Your task to perform on an android device: Is it going to rain tomorrow? Image 0: 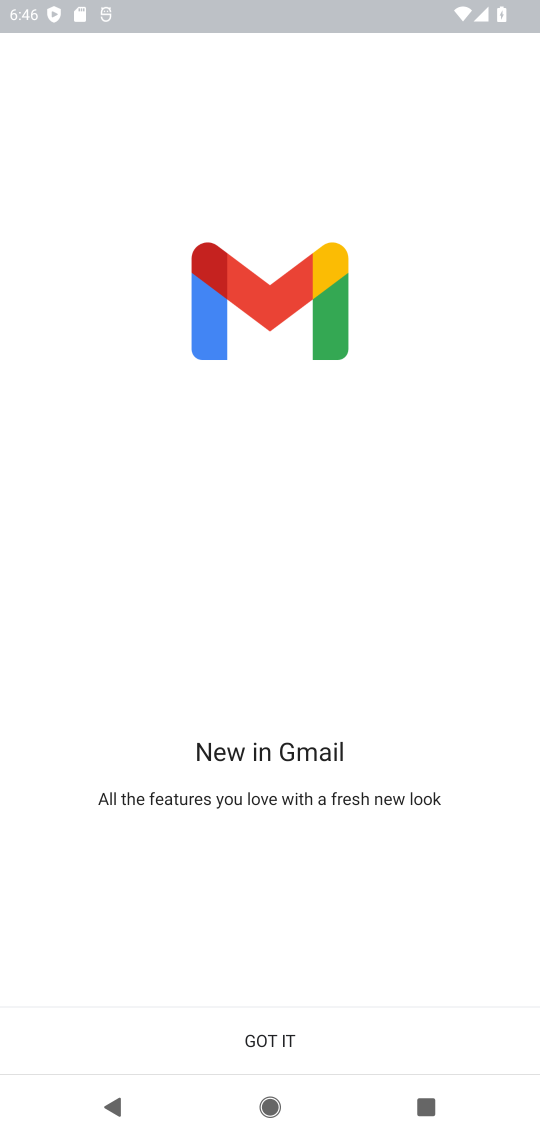
Step 0: press home button
Your task to perform on an android device: Is it going to rain tomorrow? Image 1: 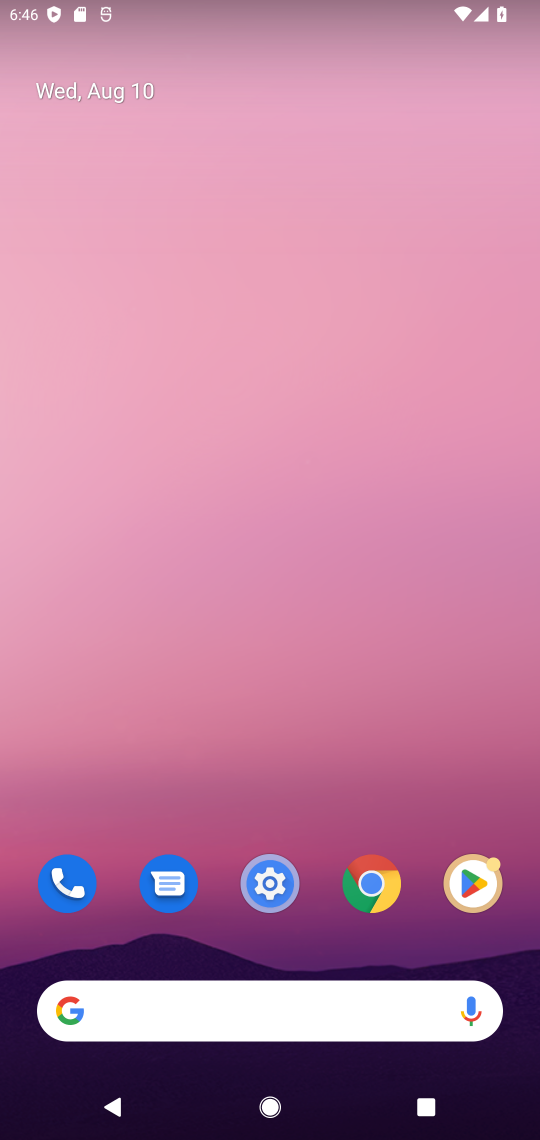
Step 1: click (244, 985)
Your task to perform on an android device: Is it going to rain tomorrow? Image 2: 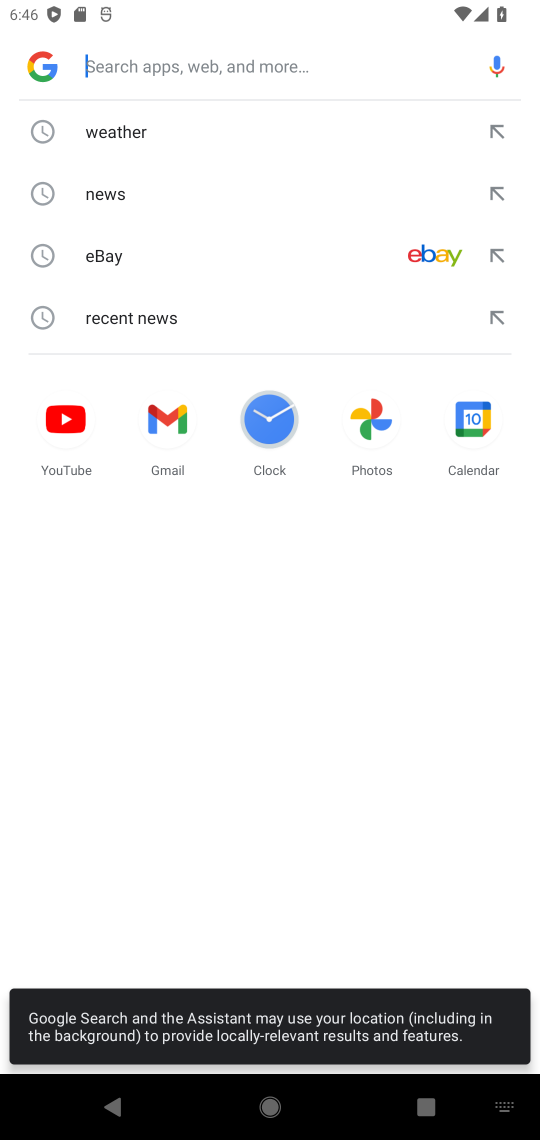
Step 2: click (193, 61)
Your task to perform on an android device: Is it going to rain tomorrow? Image 3: 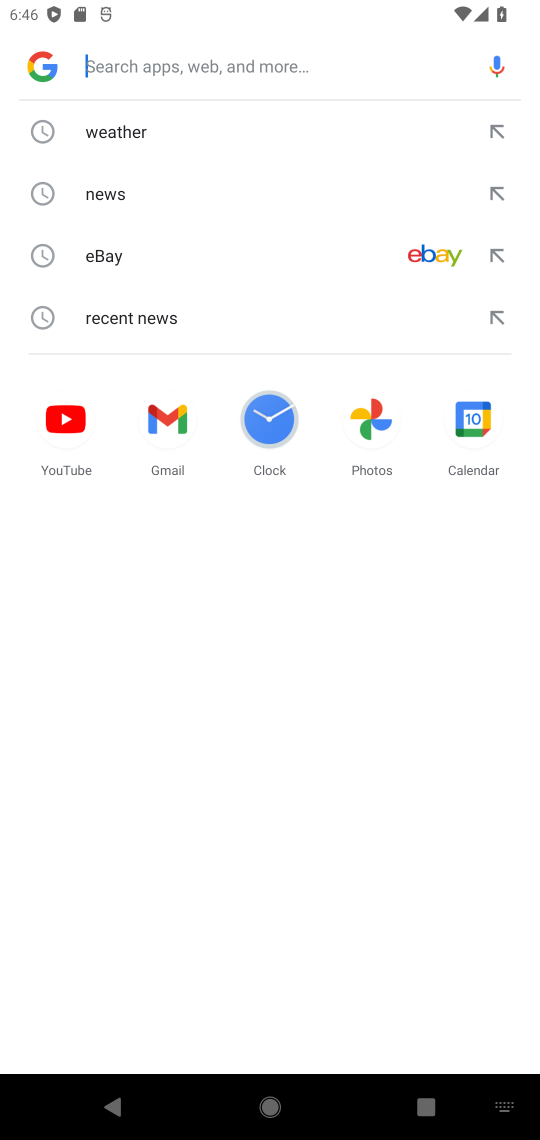
Step 3: click (150, 135)
Your task to perform on an android device: Is it going to rain tomorrow? Image 4: 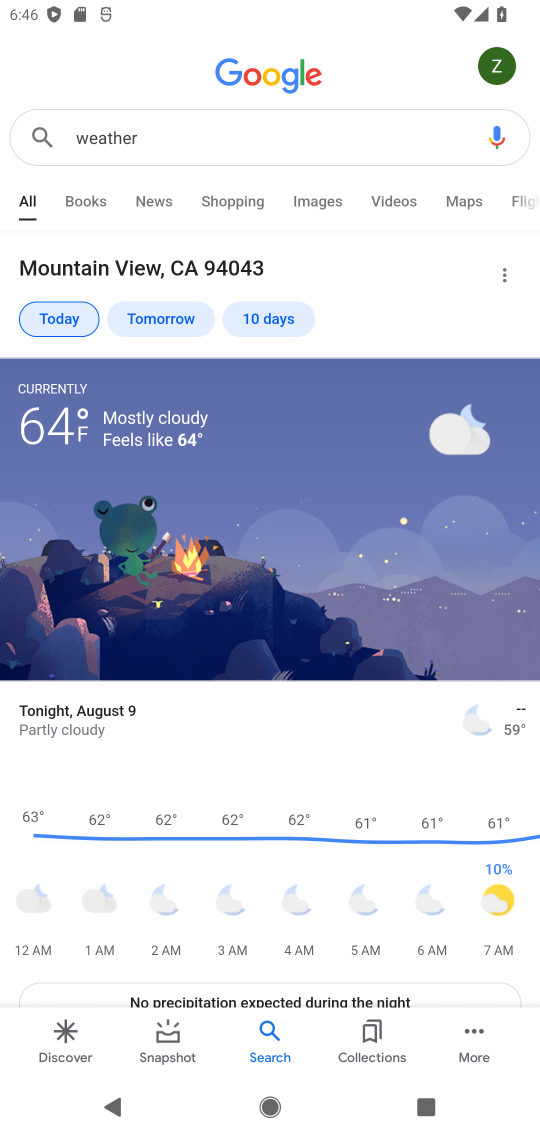
Step 4: click (160, 316)
Your task to perform on an android device: Is it going to rain tomorrow? Image 5: 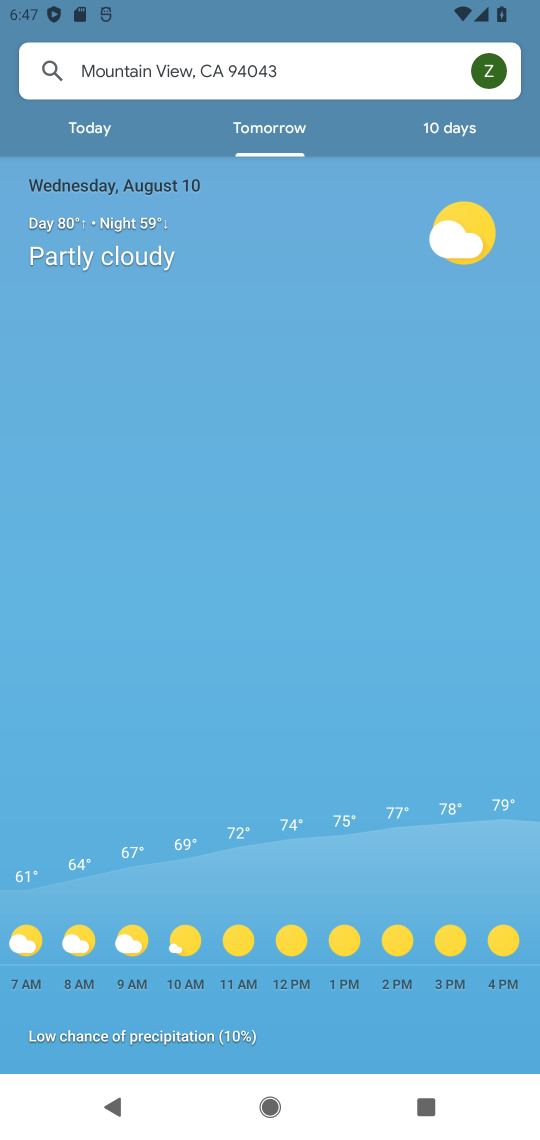
Step 5: task complete